Your task to perform on an android device: change text size in settings app Image 0: 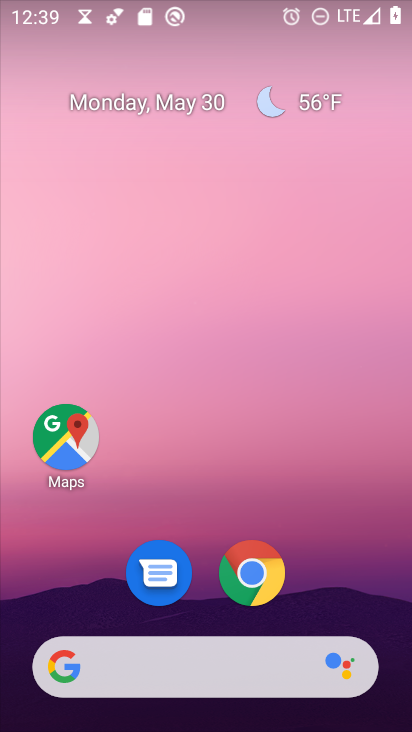
Step 0: drag from (319, 614) to (329, 19)
Your task to perform on an android device: change text size in settings app Image 1: 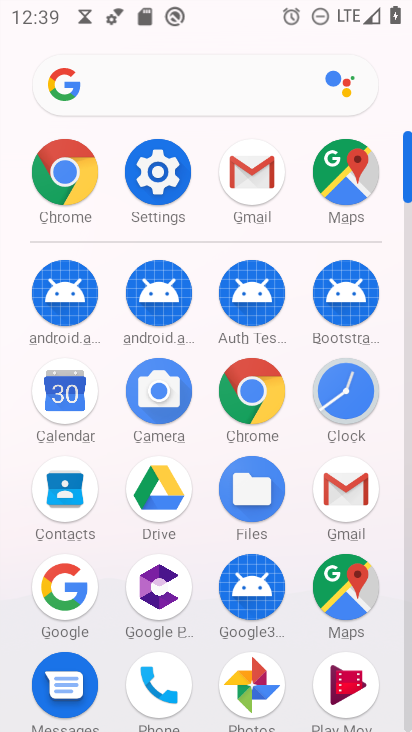
Step 1: click (141, 154)
Your task to perform on an android device: change text size in settings app Image 2: 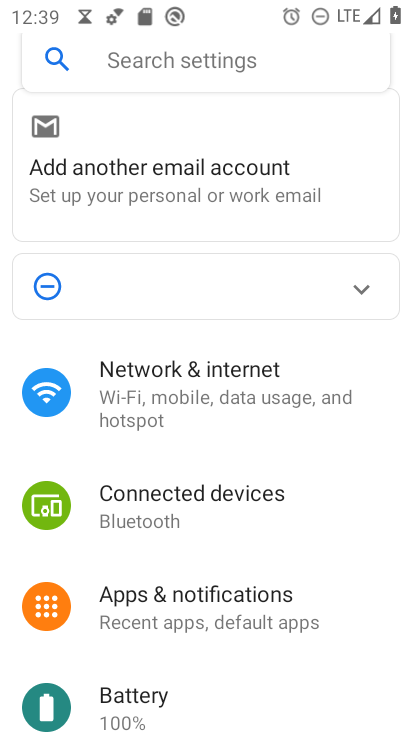
Step 2: drag from (86, 728) to (231, 235)
Your task to perform on an android device: change text size in settings app Image 3: 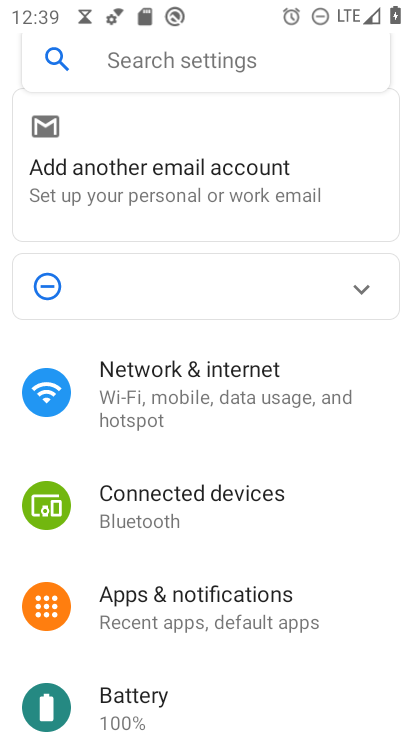
Step 3: drag from (265, 645) to (291, 174)
Your task to perform on an android device: change text size in settings app Image 4: 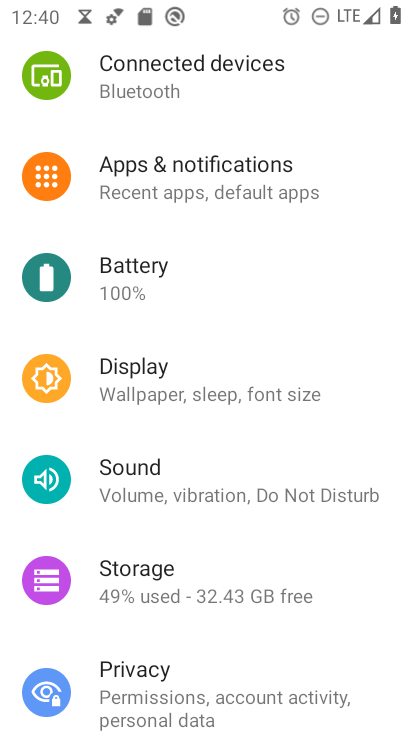
Step 4: drag from (242, 686) to (307, 62)
Your task to perform on an android device: change text size in settings app Image 5: 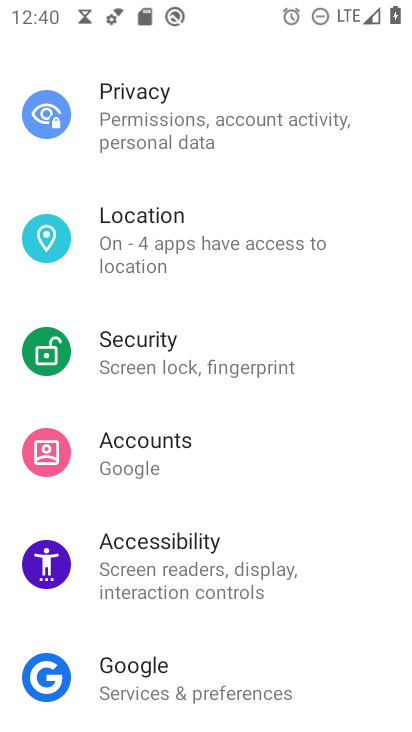
Step 5: drag from (243, 609) to (258, 77)
Your task to perform on an android device: change text size in settings app Image 6: 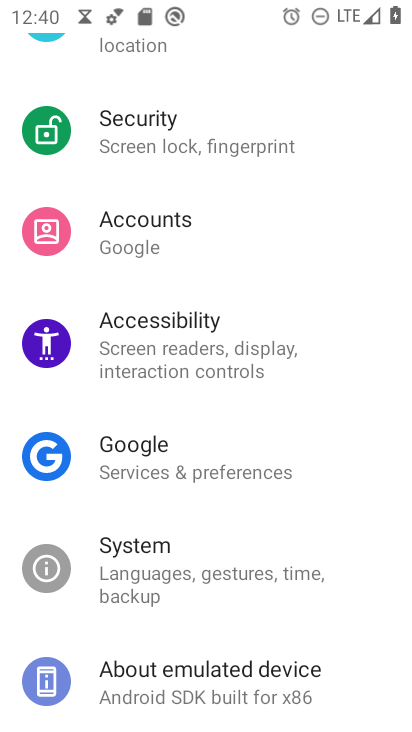
Step 6: click (225, 363)
Your task to perform on an android device: change text size in settings app Image 7: 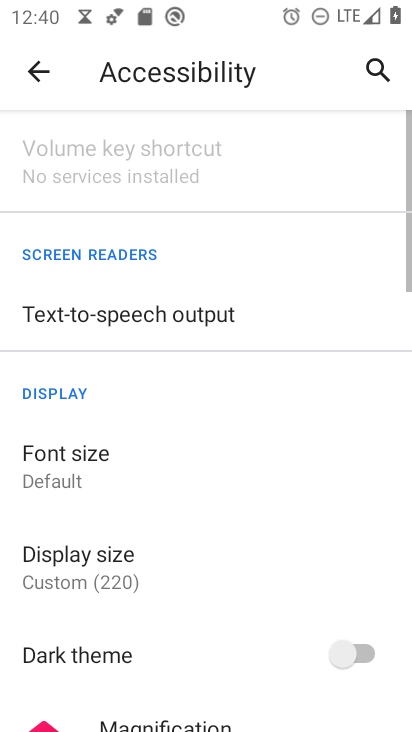
Step 7: click (119, 479)
Your task to perform on an android device: change text size in settings app Image 8: 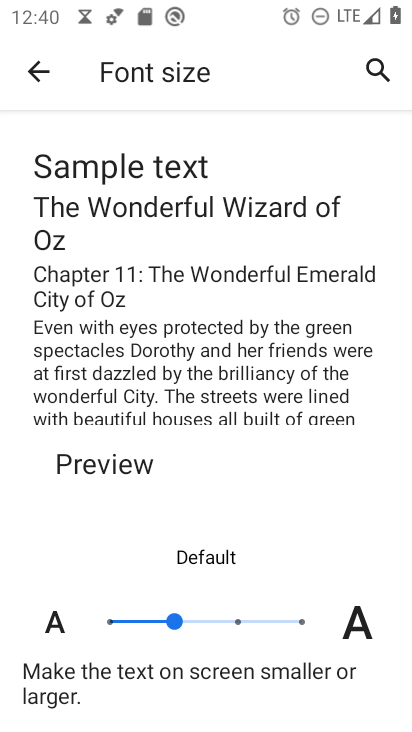
Step 8: click (234, 624)
Your task to perform on an android device: change text size in settings app Image 9: 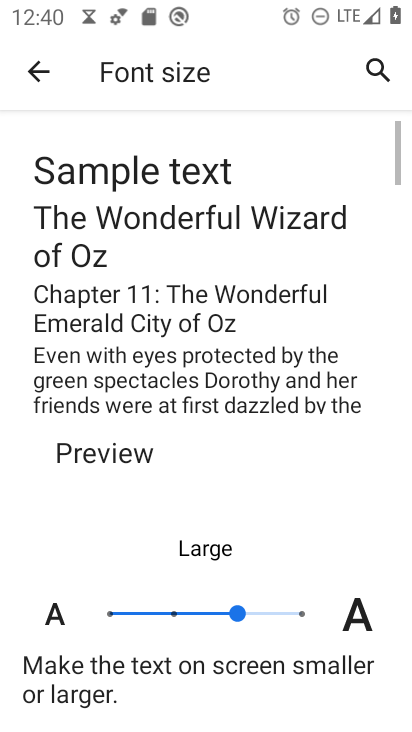
Step 9: task complete